Your task to perform on an android device: remove spam from my inbox in the gmail app Image 0: 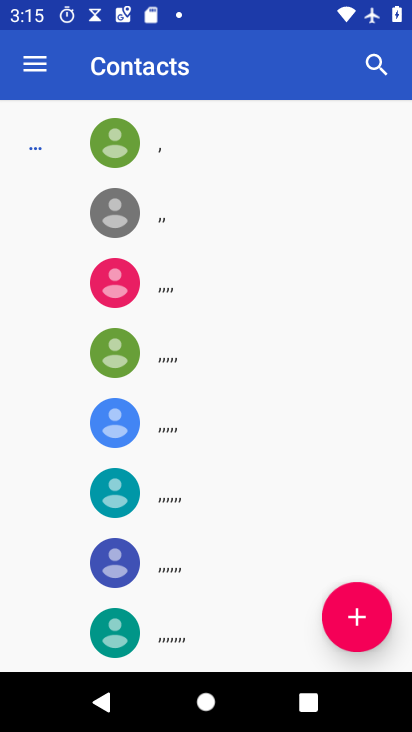
Step 0: press home button
Your task to perform on an android device: remove spam from my inbox in the gmail app Image 1: 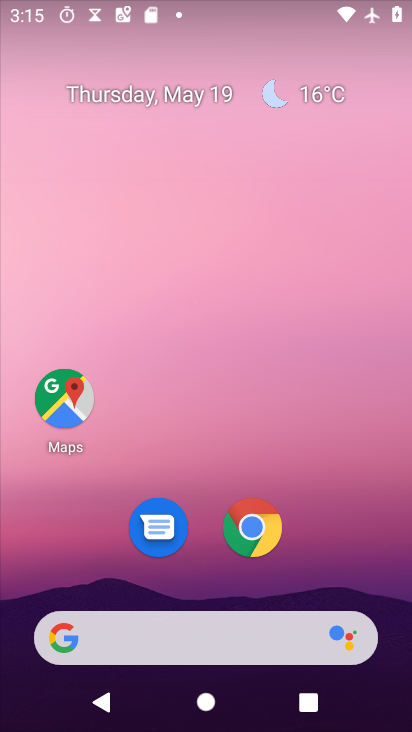
Step 1: drag from (335, 546) to (171, 17)
Your task to perform on an android device: remove spam from my inbox in the gmail app Image 2: 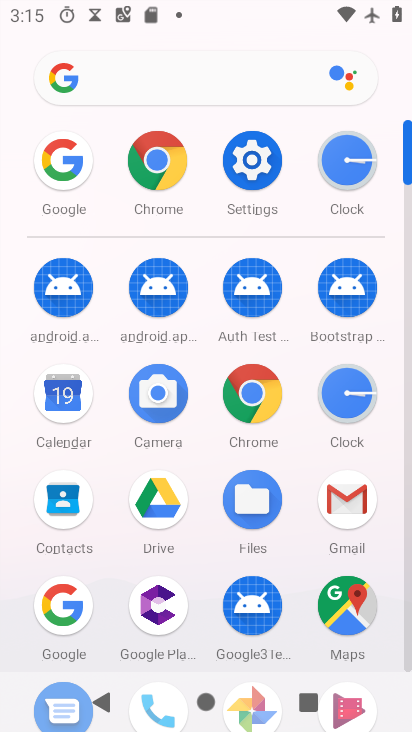
Step 2: click (350, 485)
Your task to perform on an android device: remove spam from my inbox in the gmail app Image 3: 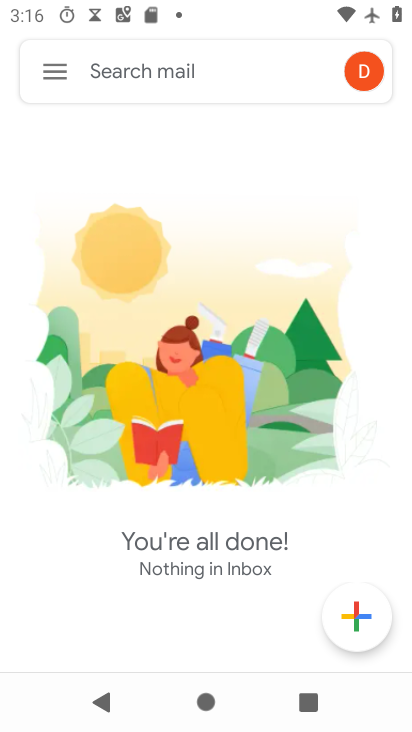
Step 3: click (55, 74)
Your task to perform on an android device: remove spam from my inbox in the gmail app Image 4: 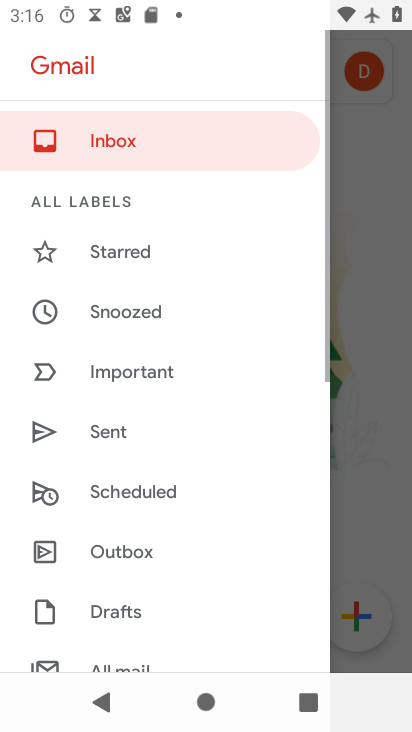
Step 4: drag from (214, 564) to (144, 123)
Your task to perform on an android device: remove spam from my inbox in the gmail app Image 5: 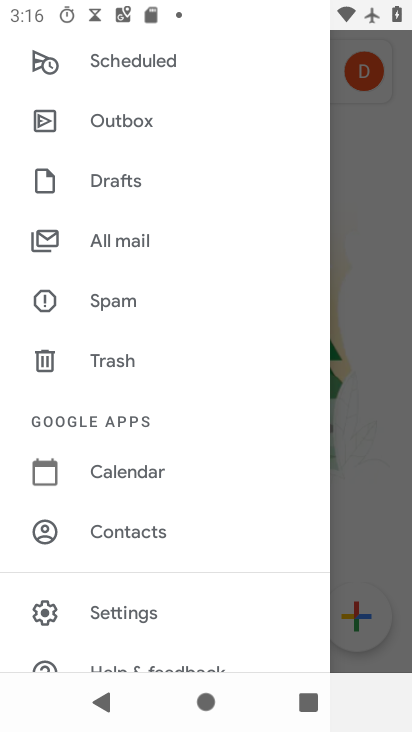
Step 5: click (133, 298)
Your task to perform on an android device: remove spam from my inbox in the gmail app Image 6: 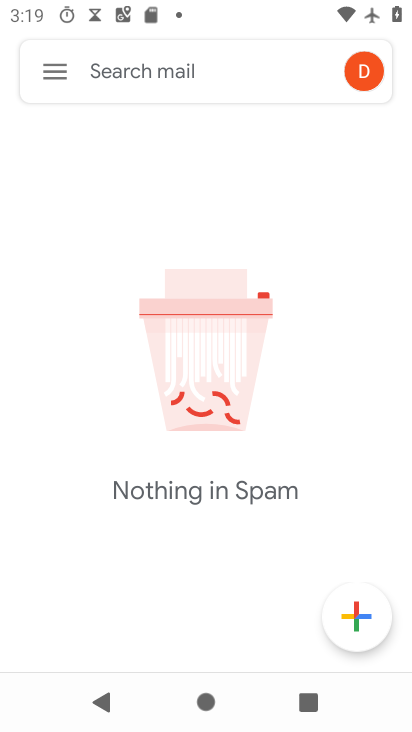
Step 6: task complete